Your task to perform on an android device: toggle pop-ups in chrome Image 0: 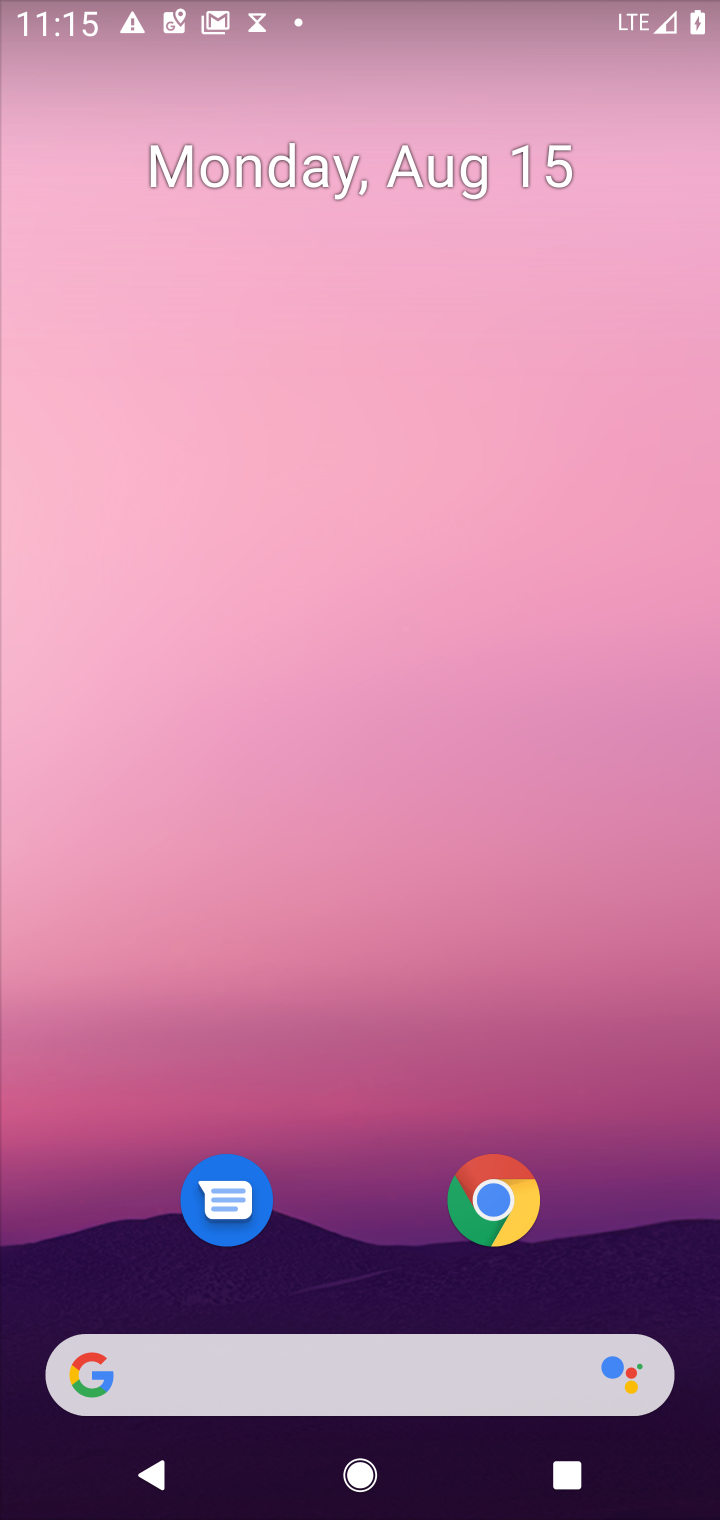
Step 0: click (477, 1172)
Your task to perform on an android device: toggle pop-ups in chrome Image 1: 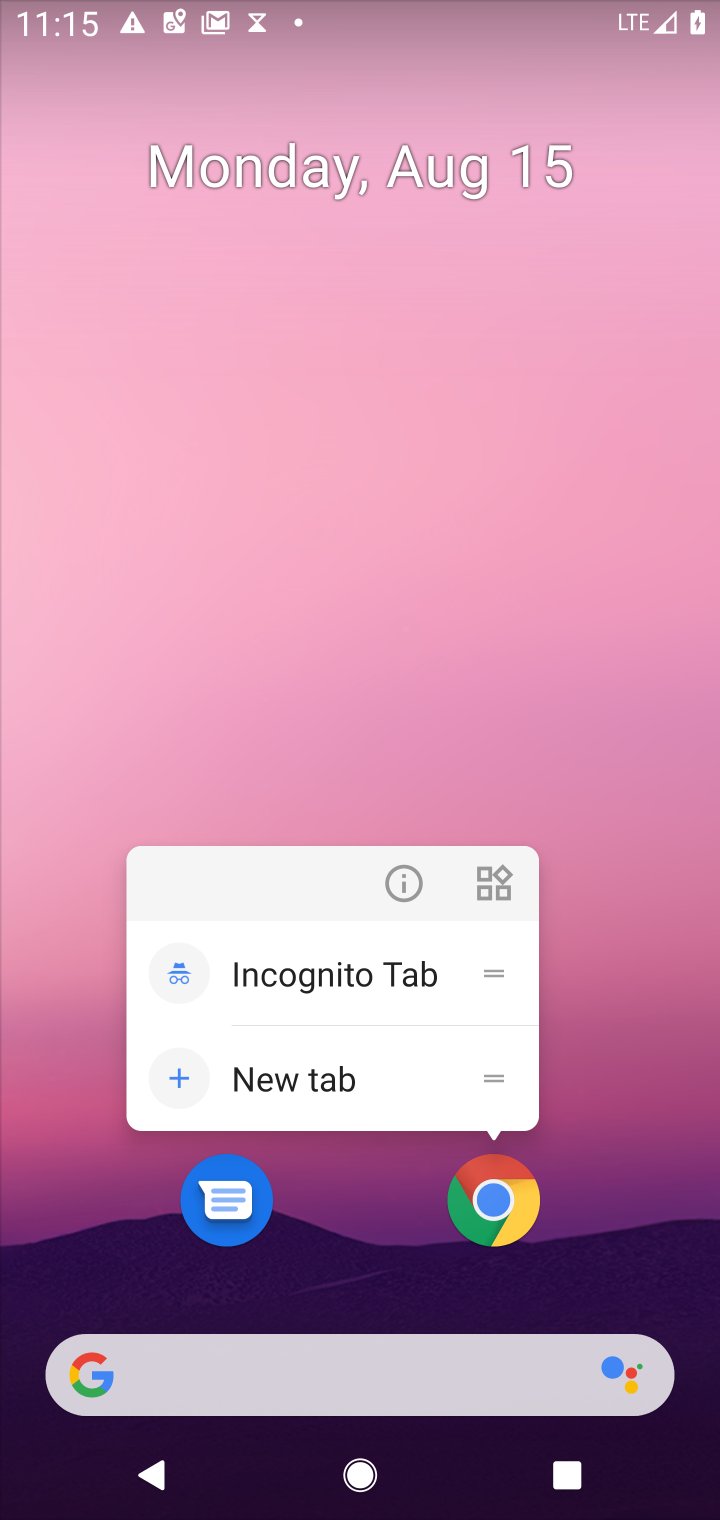
Step 1: click (477, 1172)
Your task to perform on an android device: toggle pop-ups in chrome Image 2: 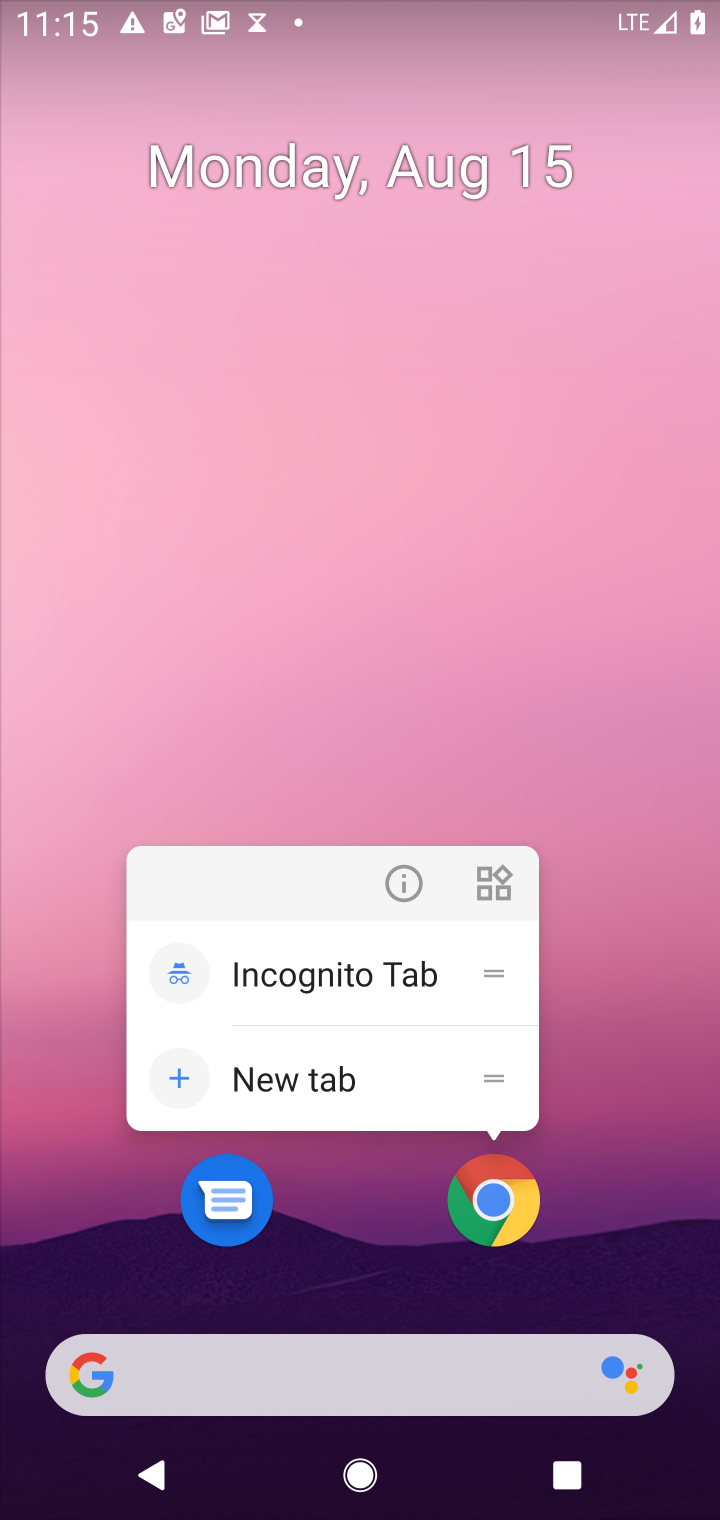
Step 2: click (477, 1172)
Your task to perform on an android device: toggle pop-ups in chrome Image 3: 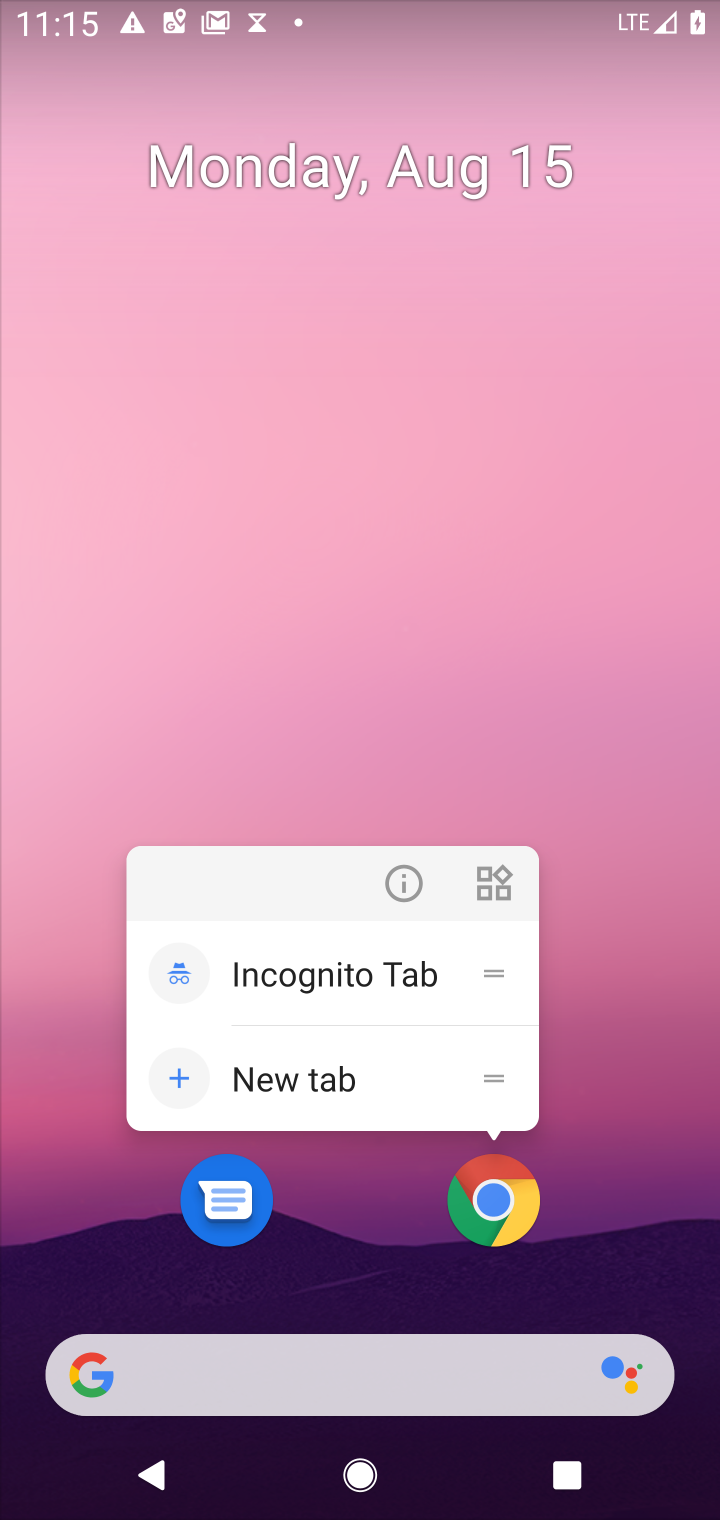
Step 3: click (498, 1194)
Your task to perform on an android device: toggle pop-ups in chrome Image 4: 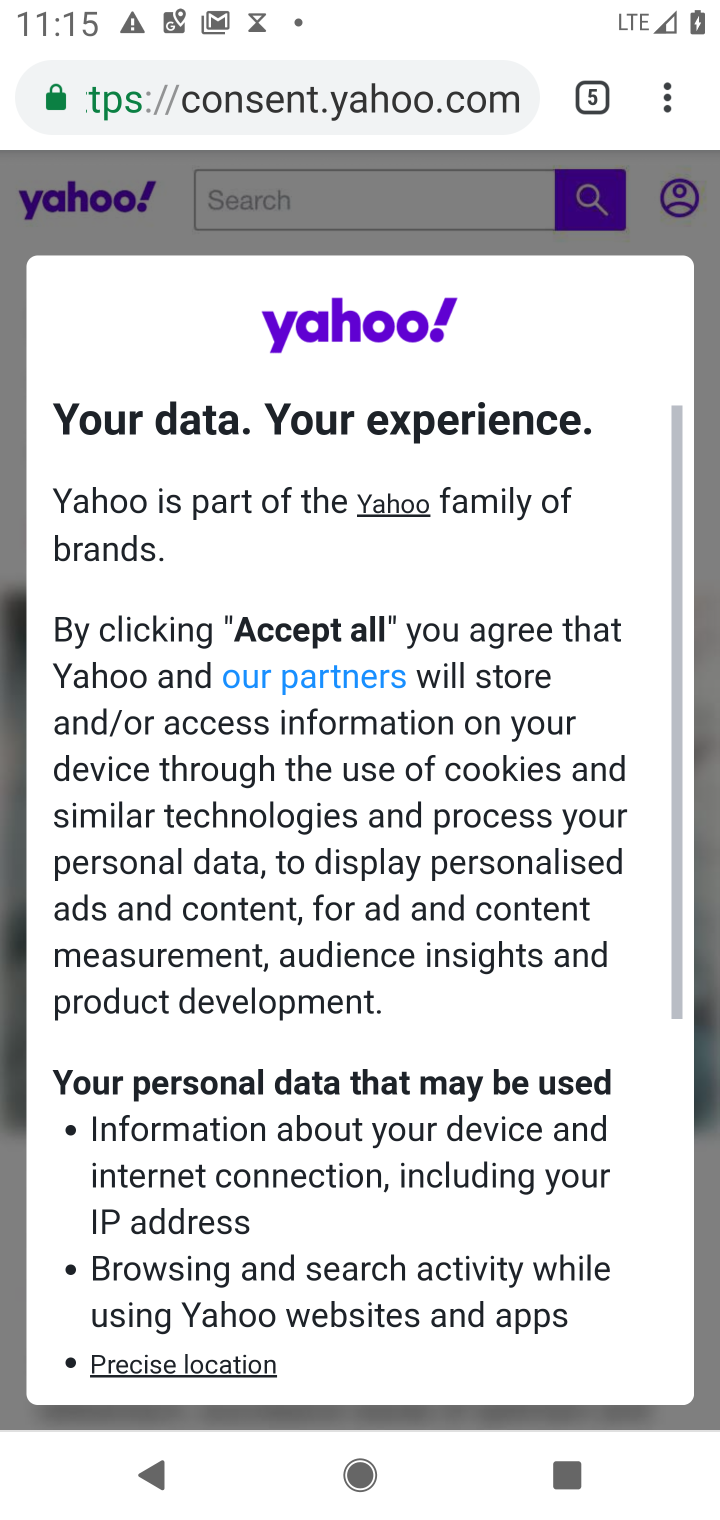
Step 4: click (664, 97)
Your task to perform on an android device: toggle pop-ups in chrome Image 5: 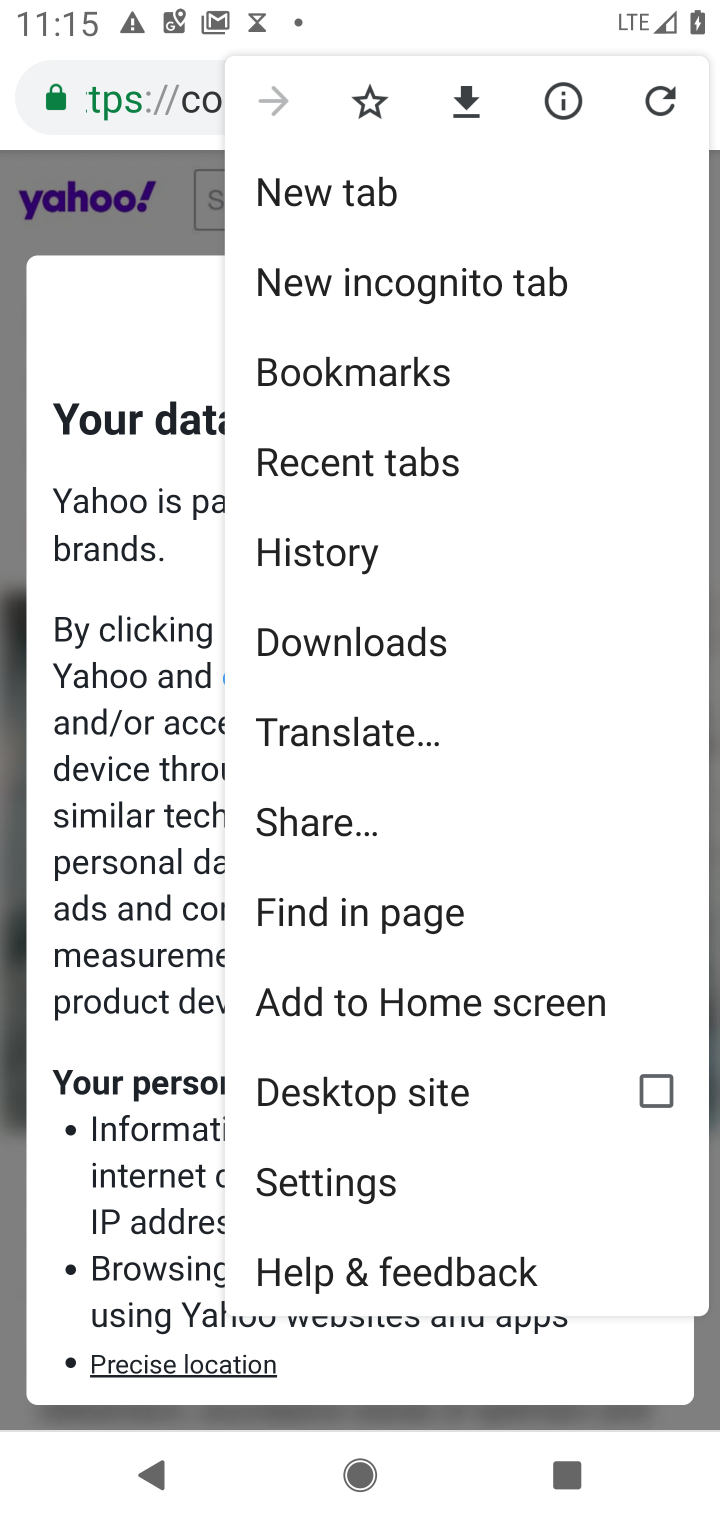
Step 5: click (390, 1178)
Your task to perform on an android device: toggle pop-ups in chrome Image 6: 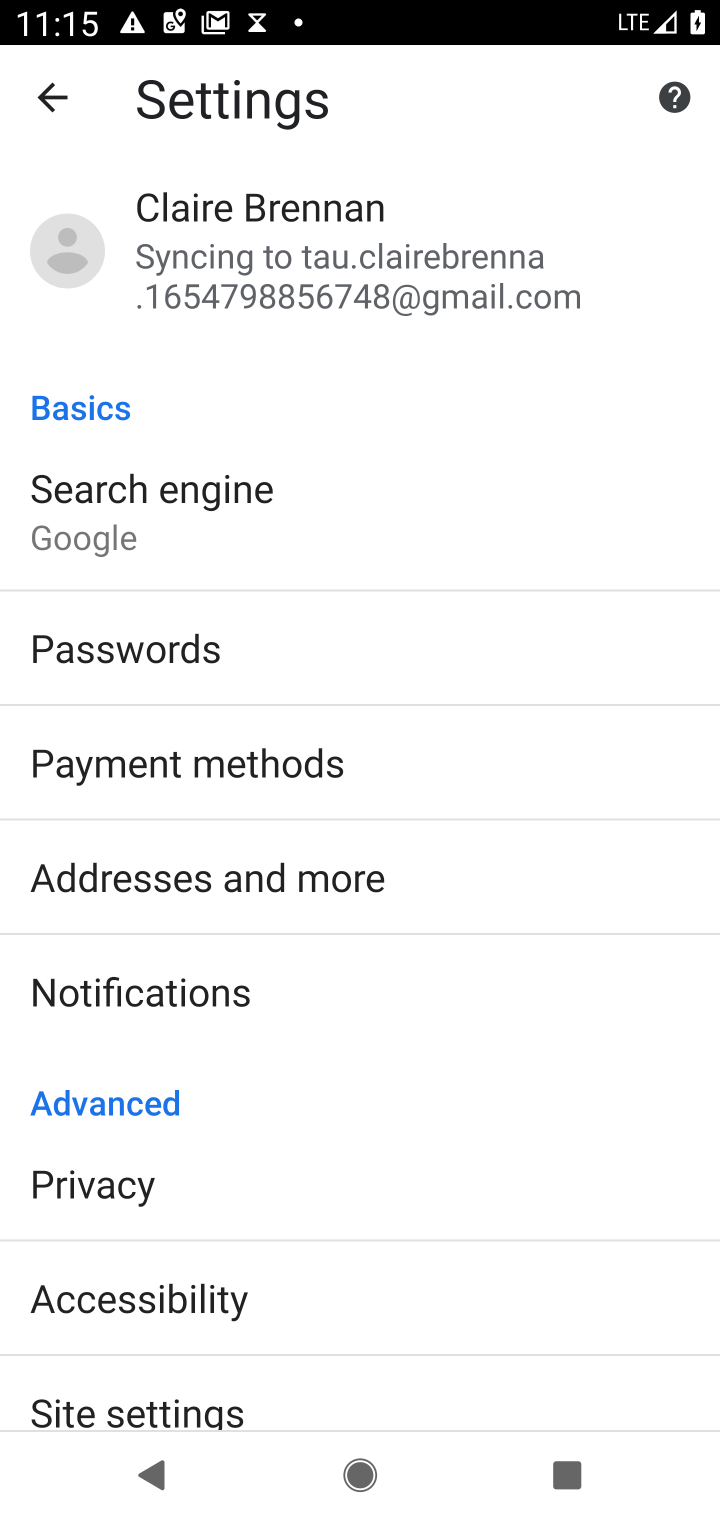
Step 6: click (274, 1392)
Your task to perform on an android device: toggle pop-ups in chrome Image 7: 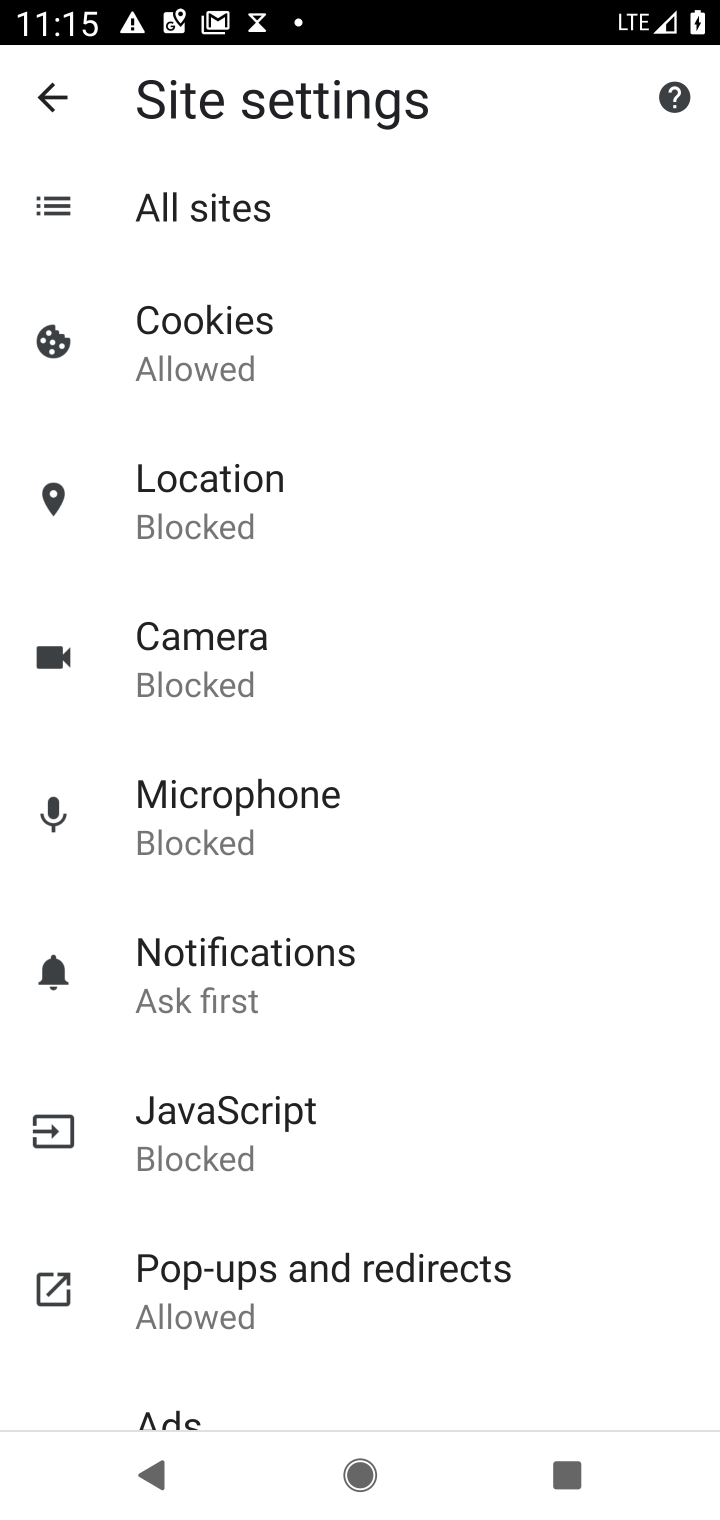
Step 7: click (367, 1260)
Your task to perform on an android device: toggle pop-ups in chrome Image 8: 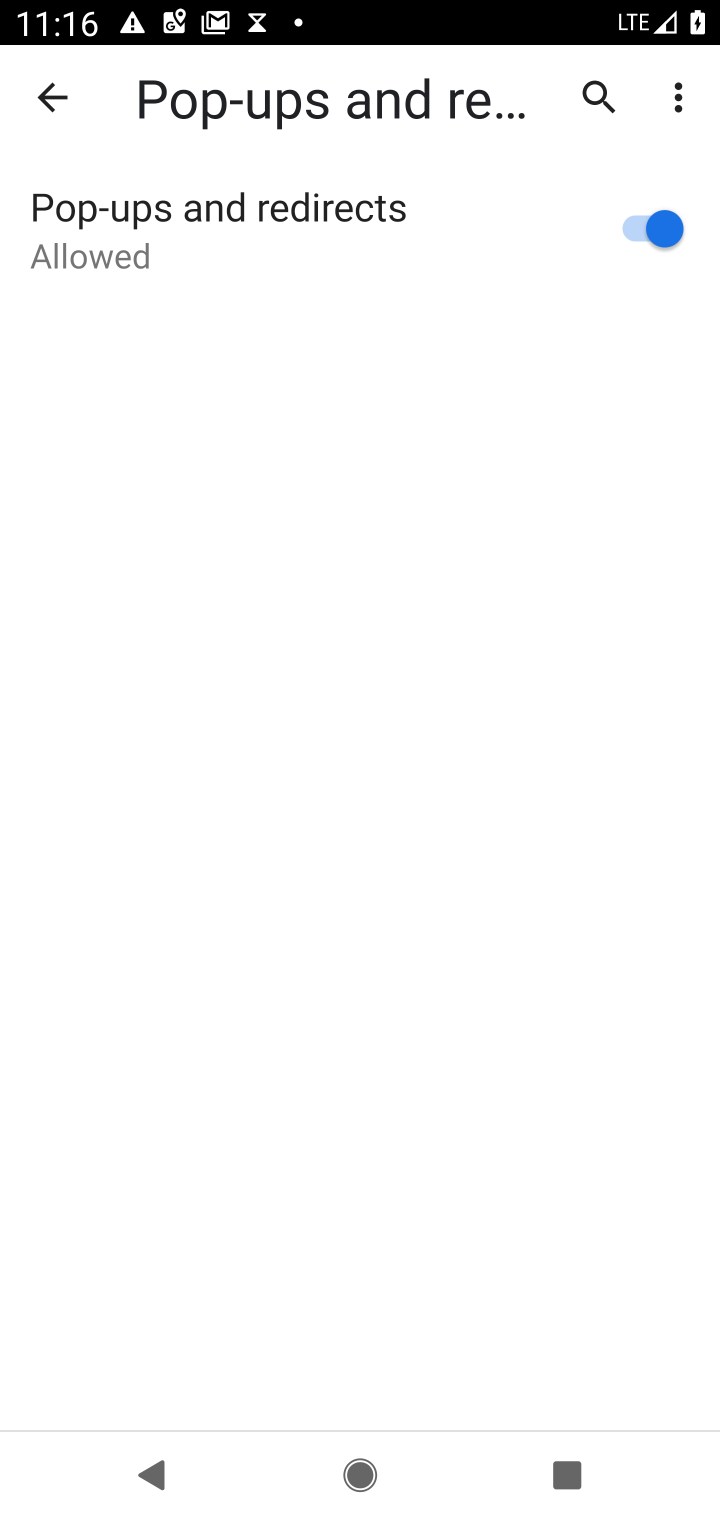
Step 8: click (625, 220)
Your task to perform on an android device: toggle pop-ups in chrome Image 9: 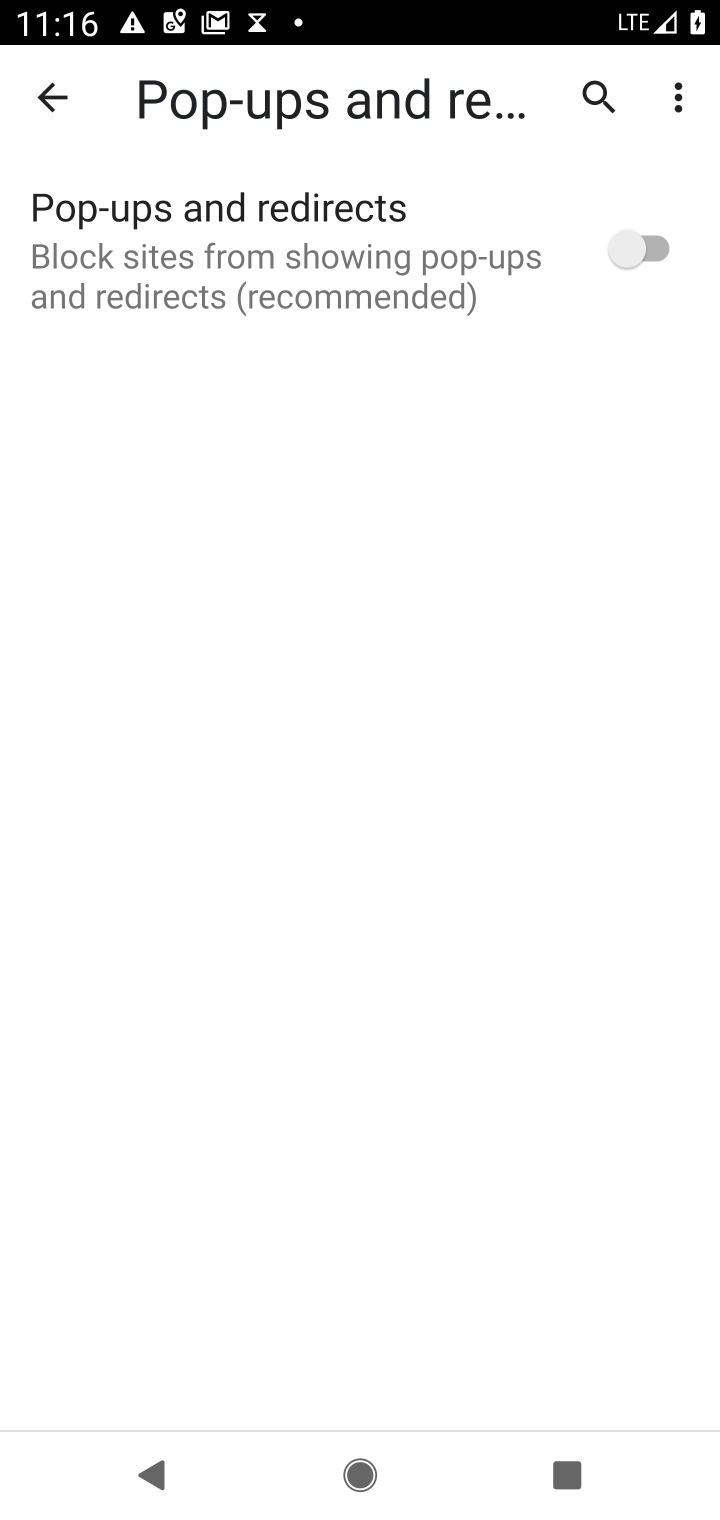
Step 9: task complete